Your task to perform on an android device: What is the price of a 12' ladder at Lowes? Image 0: 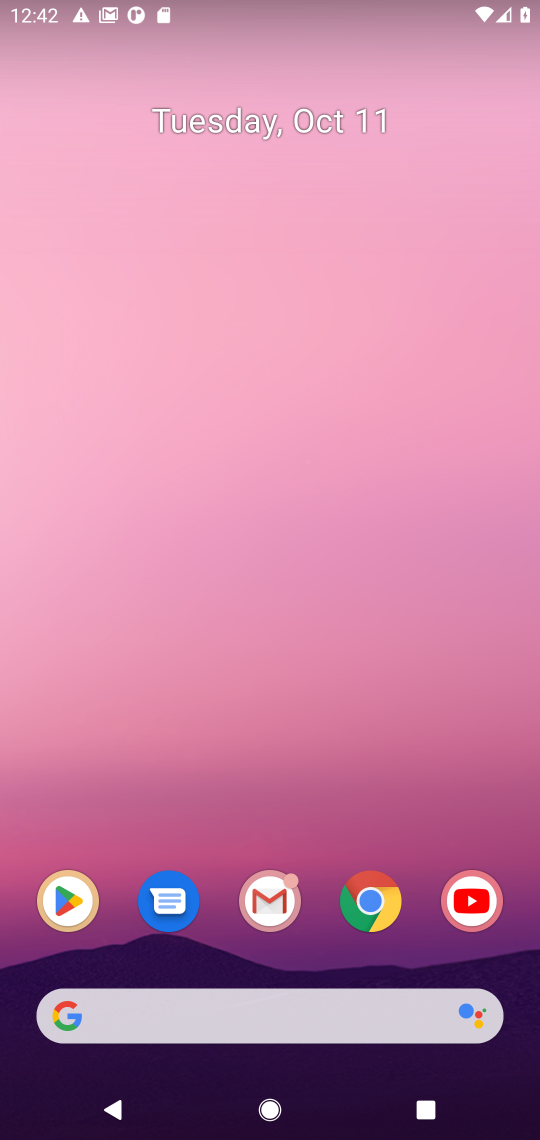
Step 0: press home button
Your task to perform on an android device: What is the price of a 12' ladder at Lowes? Image 1: 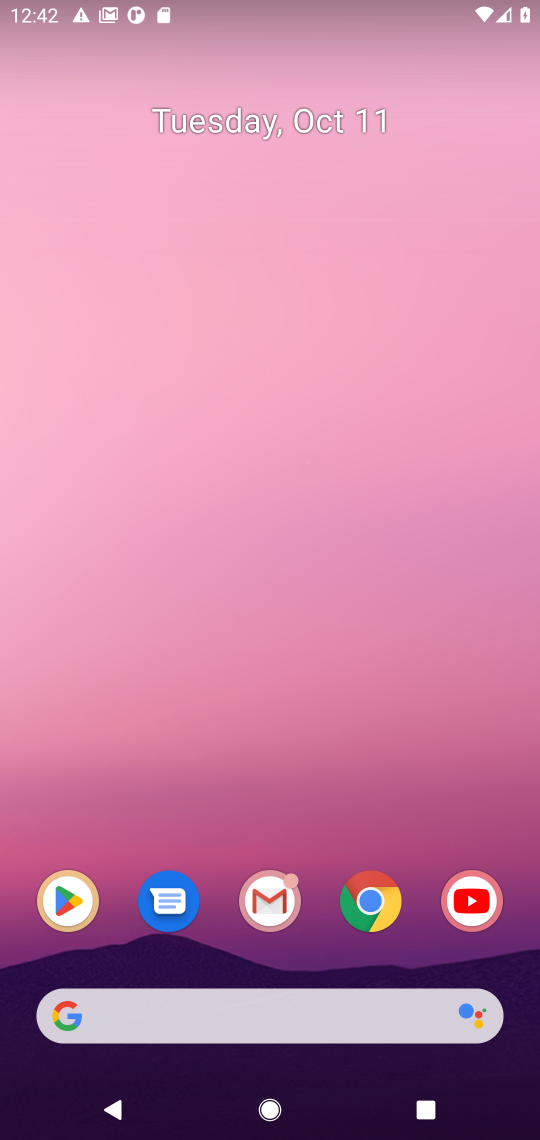
Step 1: click (52, 1012)
Your task to perform on an android device: What is the price of a 12' ladder at Lowes? Image 2: 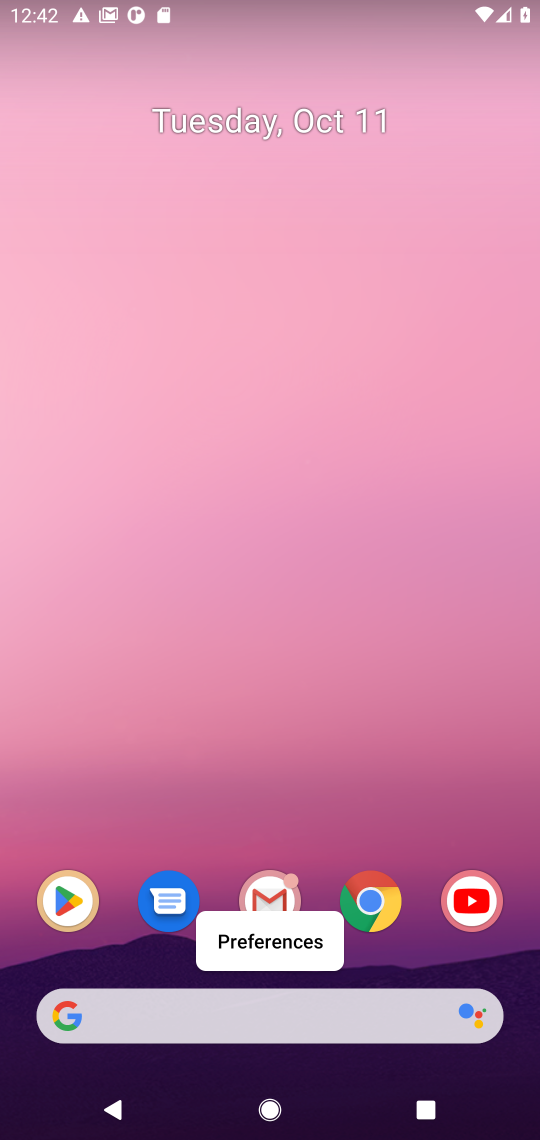
Step 2: click (62, 1021)
Your task to perform on an android device: What is the price of a 12' ladder at Lowes? Image 3: 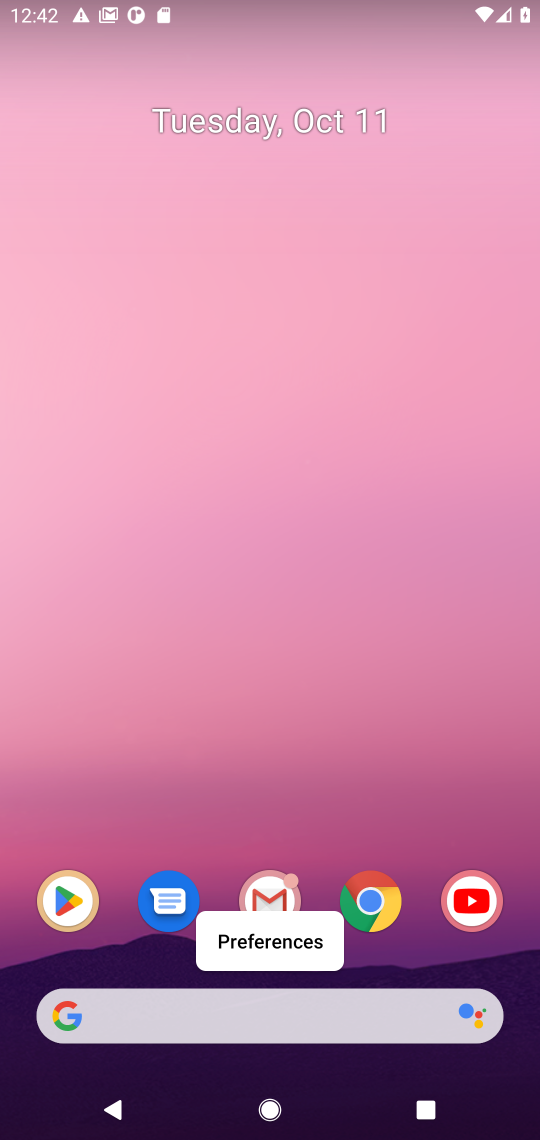
Step 3: click (61, 1024)
Your task to perform on an android device: What is the price of a 12' ladder at Lowes? Image 4: 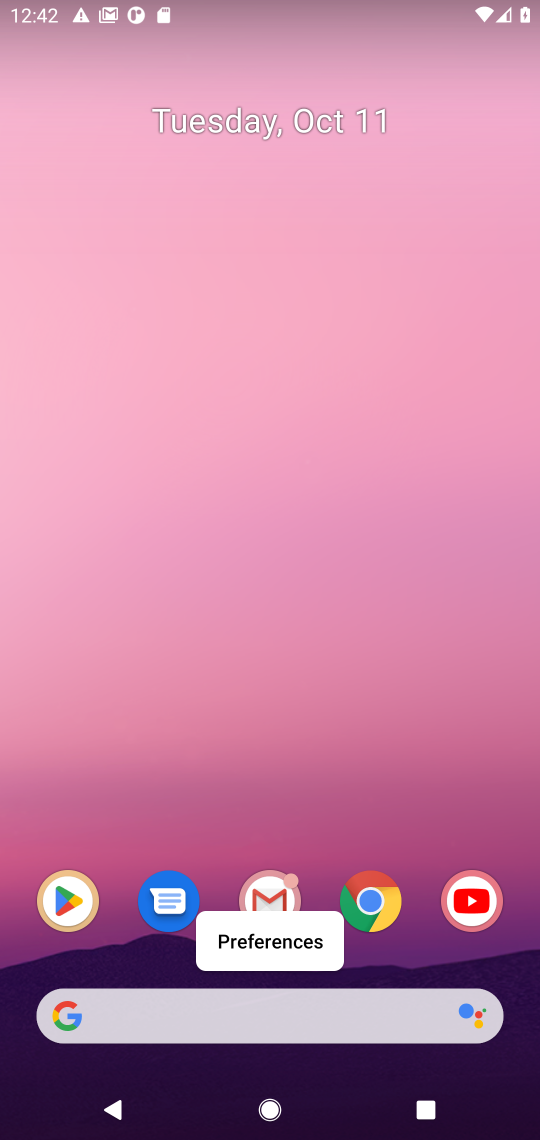
Step 4: click (60, 1023)
Your task to perform on an android device: What is the price of a 12' ladder at Lowes? Image 5: 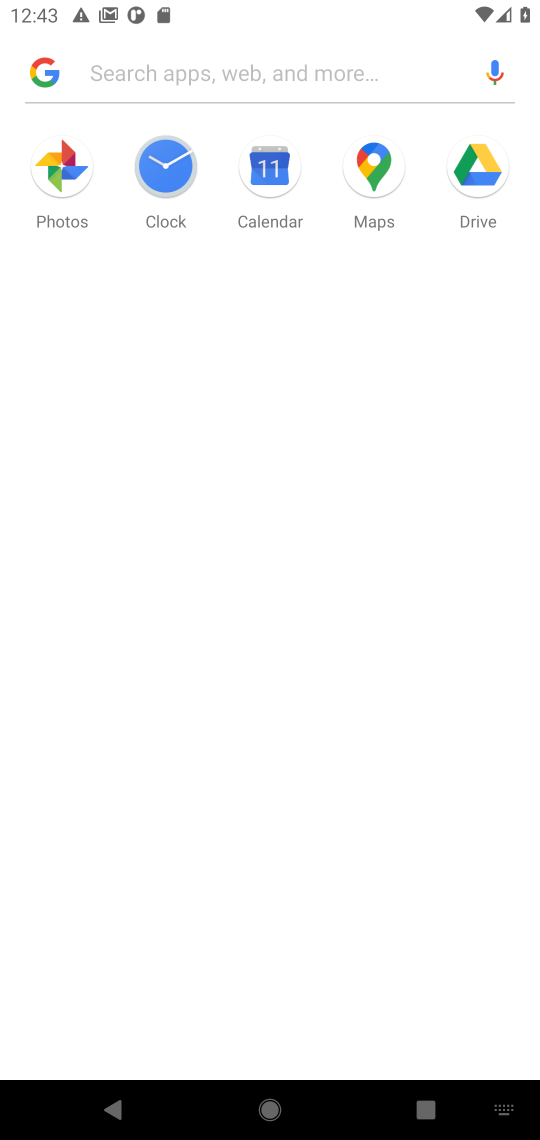
Step 5: type "What is the price of a 12' ladder at Lowes?"
Your task to perform on an android device: What is the price of a 12' ladder at Lowes? Image 6: 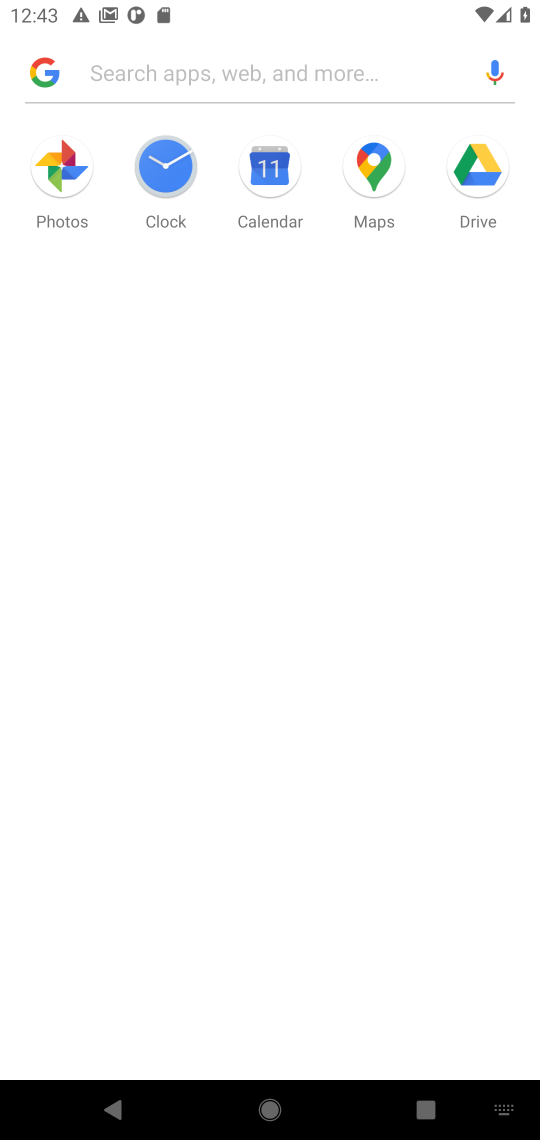
Step 6: click (191, 80)
Your task to perform on an android device: What is the price of a 12' ladder at Lowes? Image 7: 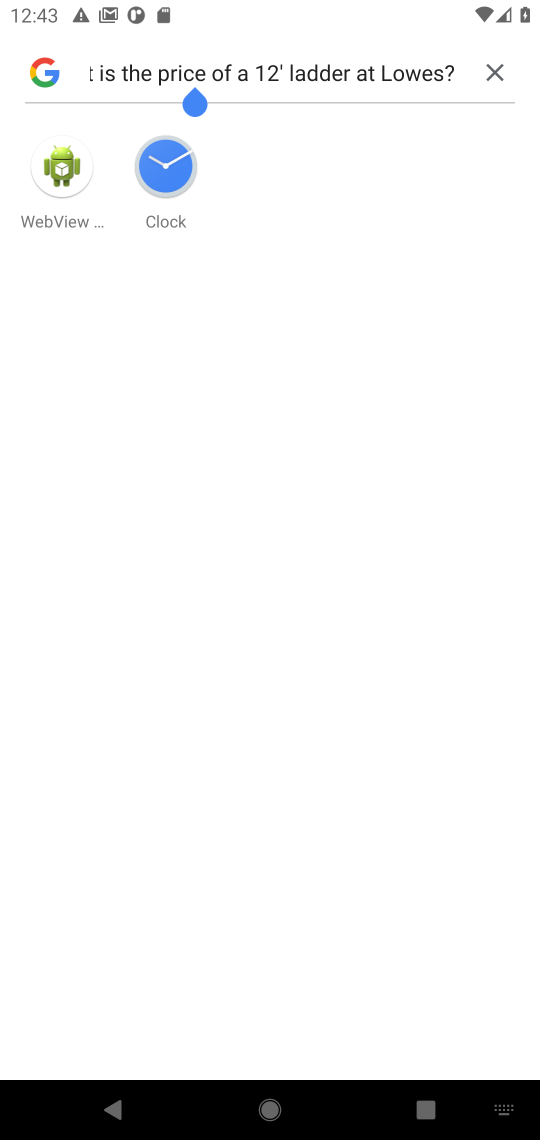
Step 7: press enter
Your task to perform on an android device: What is the price of a 12' ladder at Lowes? Image 8: 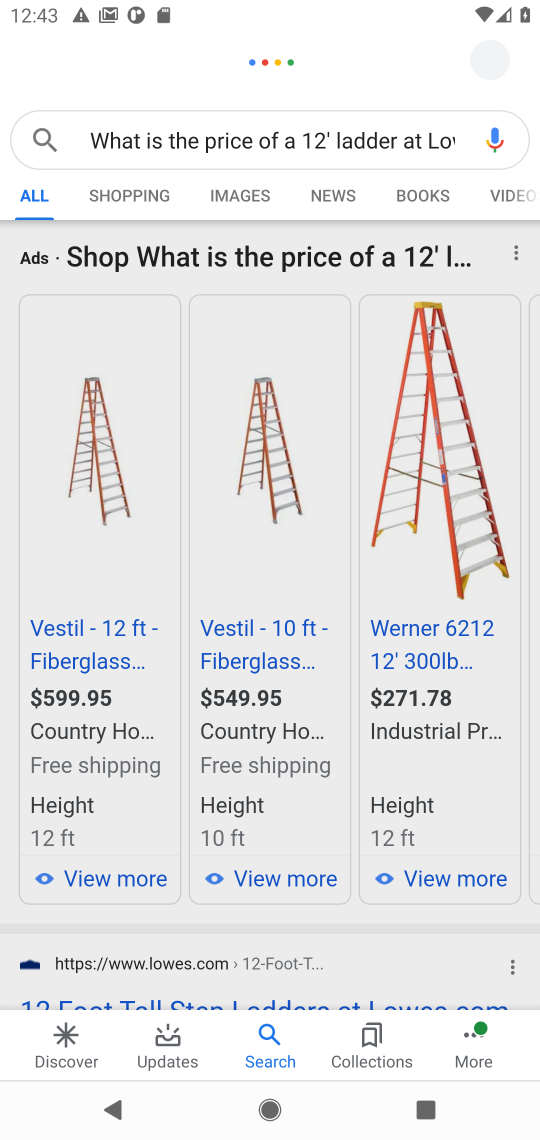
Step 8: task complete